Your task to perform on an android device: Check the news Image 0: 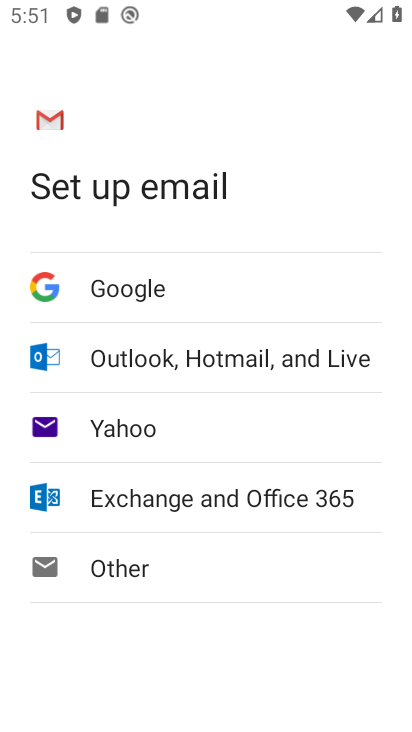
Step 0: press back button
Your task to perform on an android device: Check the news Image 1: 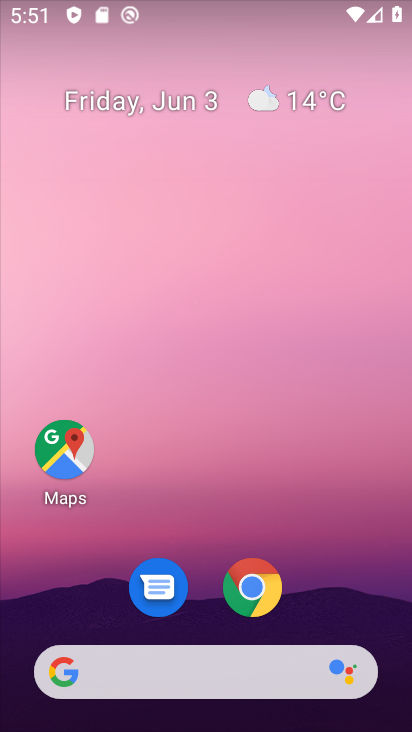
Step 1: drag from (340, 577) to (240, 44)
Your task to perform on an android device: Check the news Image 2: 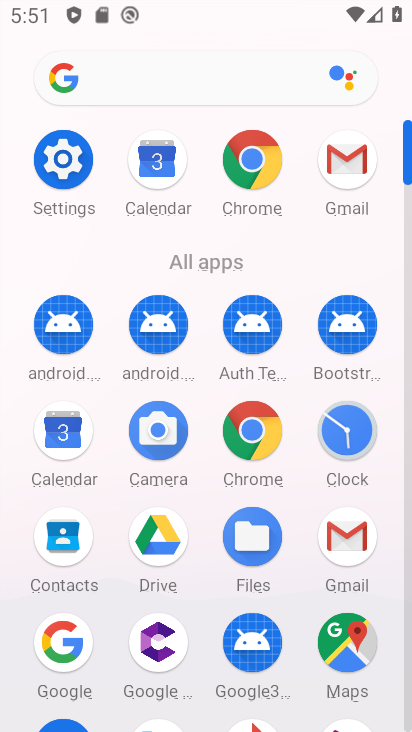
Step 2: drag from (21, 631) to (31, 260)
Your task to perform on an android device: Check the news Image 3: 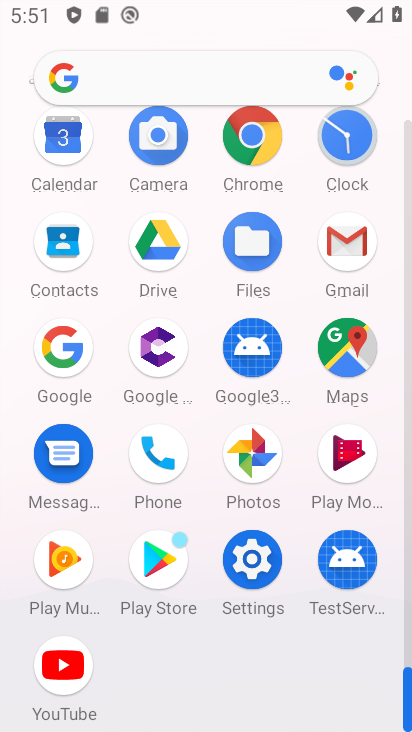
Step 3: click (249, 130)
Your task to perform on an android device: Check the news Image 4: 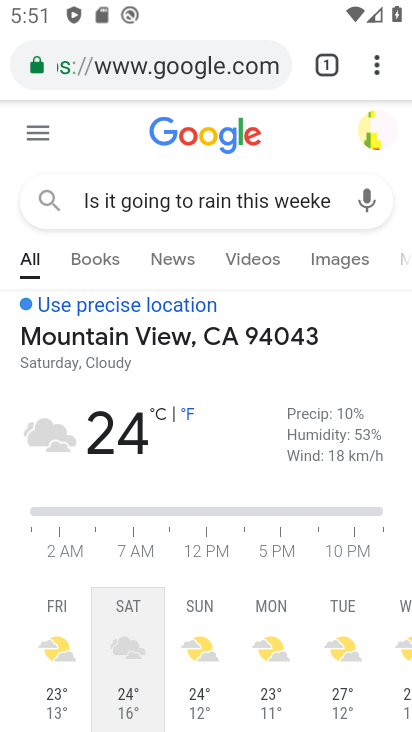
Step 4: click (189, 57)
Your task to perform on an android device: Check the news Image 5: 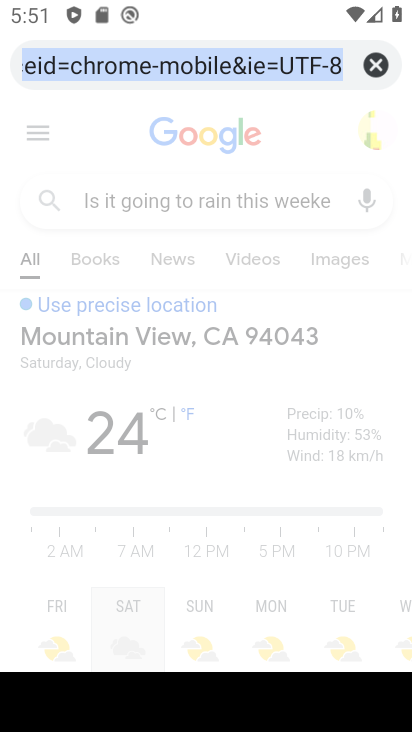
Step 5: click (369, 60)
Your task to perform on an android device: Check the news Image 6: 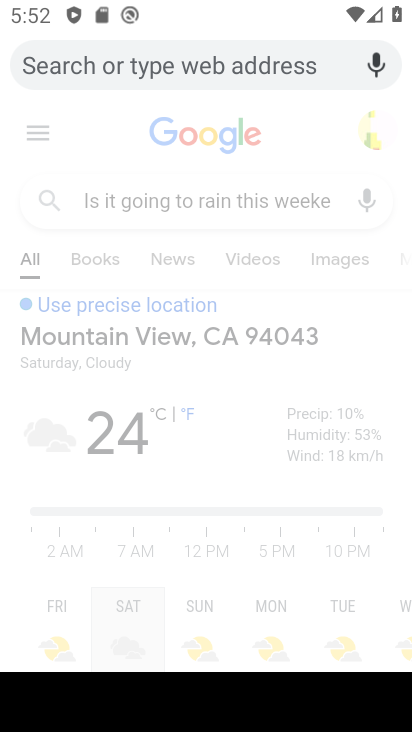
Step 6: type "Check the news"
Your task to perform on an android device: Check the news Image 7: 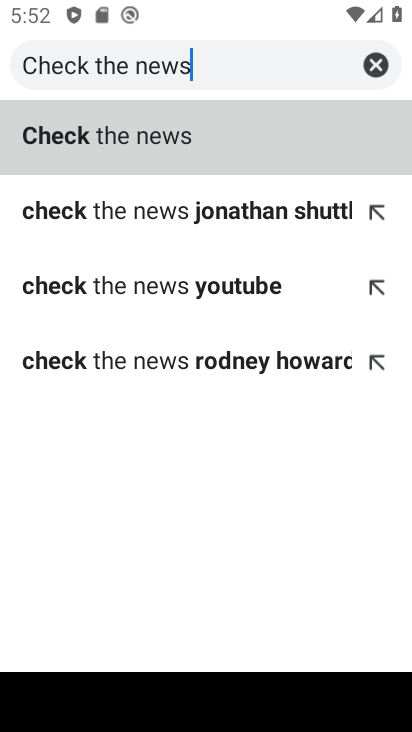
Step 7: click (150, 109)
Your task to perform on an android device: Check the news Image 8: 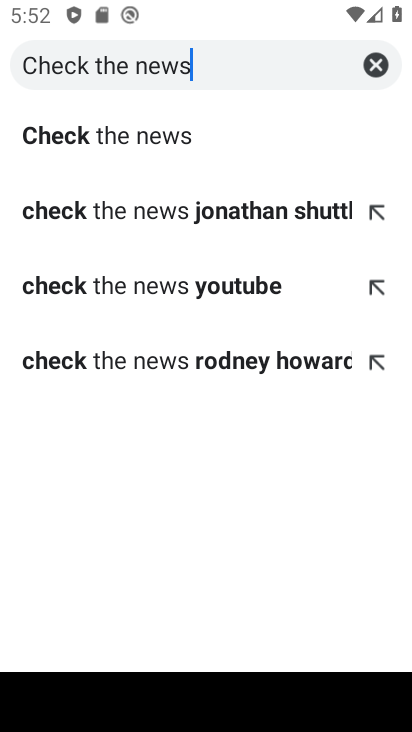
Step 8: click (169, 146)
Your task to perform on an android device: Check the news Image 9: 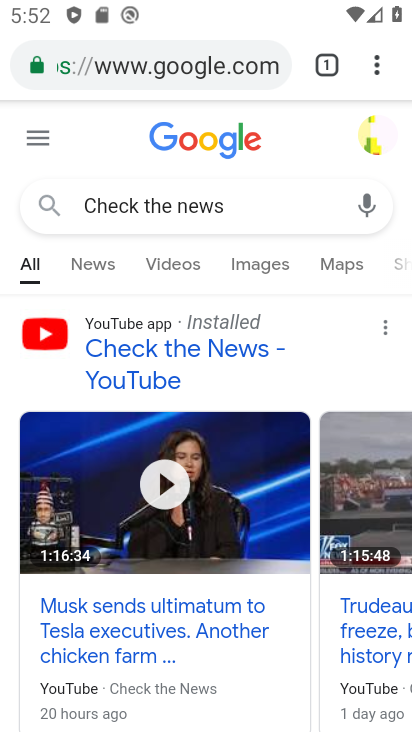
Step 9: task complete